Your task to perform on an android device: Open calendar and show me the fourth week of next month Image 0: 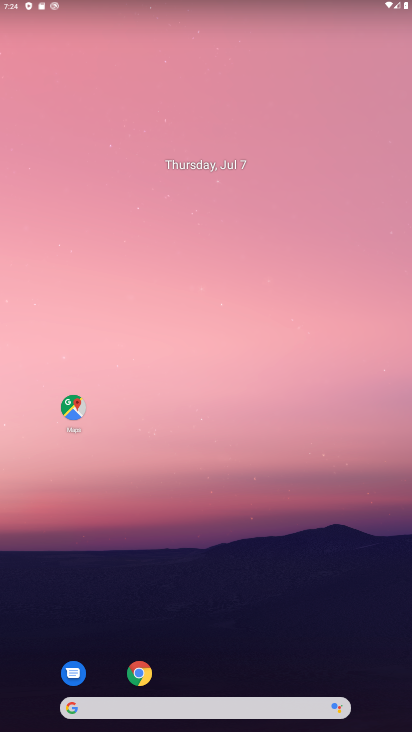
Step 0: drag from (226, 641) to (196, 28)
Your task to perform on an android device: Open calendar and show me the fourth week of next month Image 1: 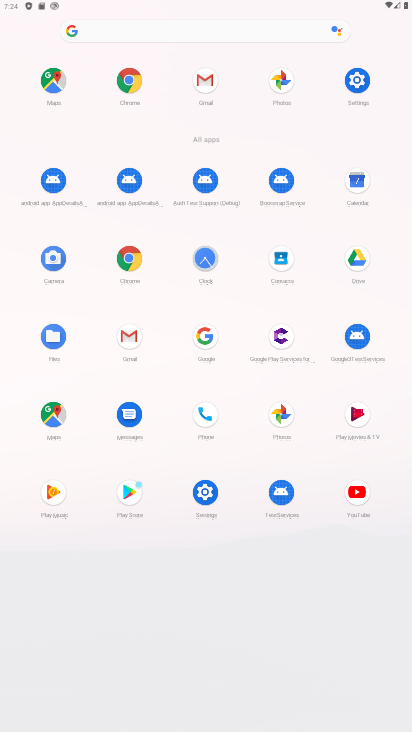
Step 1: click (359, 183)
Your task to perform on an android device: Open calendar and show me the fourth week of next month Image 2: 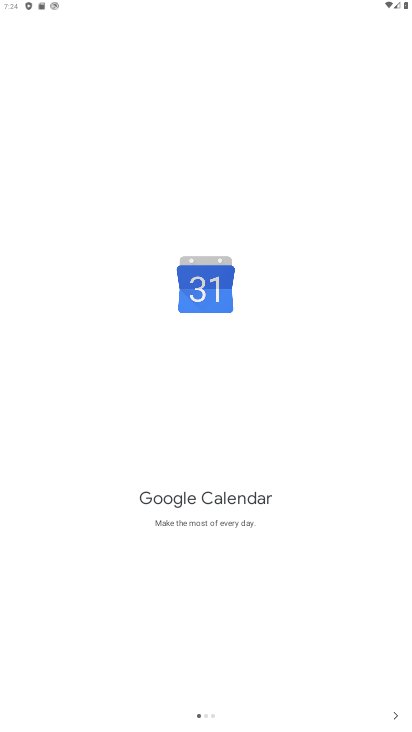
Step 2: click (396, 715)
Your task to perform on an android device: Open calendar and show me the fourth week of next month Image 3: 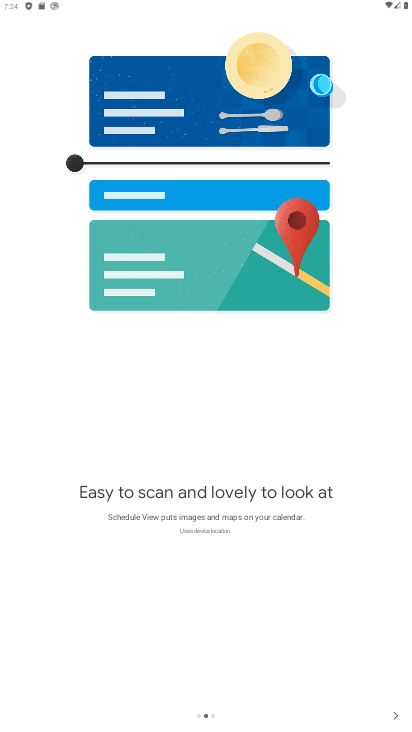
Step 3: click (396, 715)
Your task to perform on an android device: Open calendar and show me the fourth week of next month Image 4: 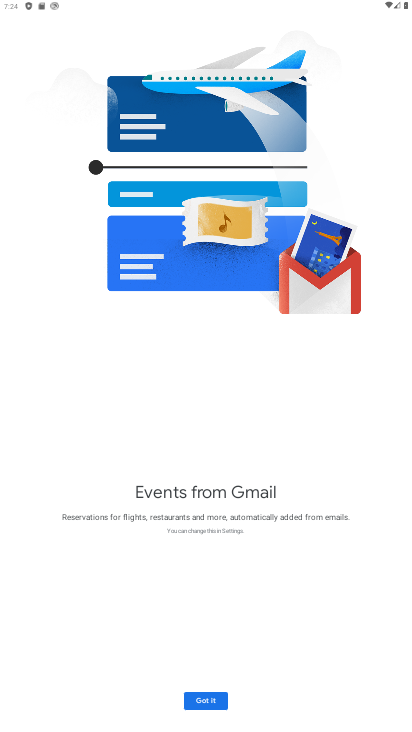
Step 4: click (219, 701)
Your task to perform on an android device: Open calendar and show me the fourth week of next month Image 5: 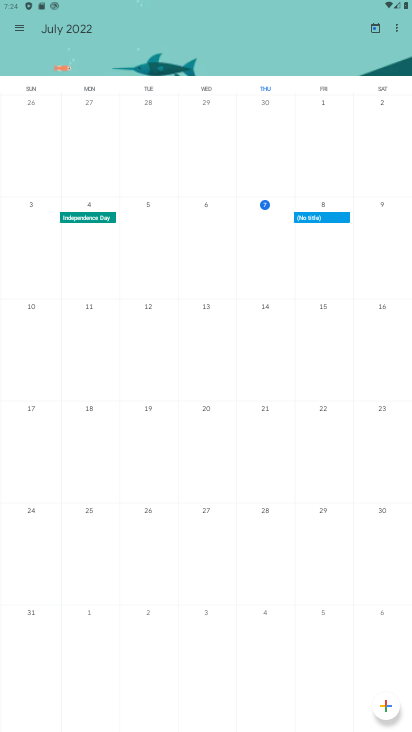
Step 5: drag from (366, 363) to (5, 373)
Your task to perform on an android device: Open calendar and show me the fourth week of next month Image 6: 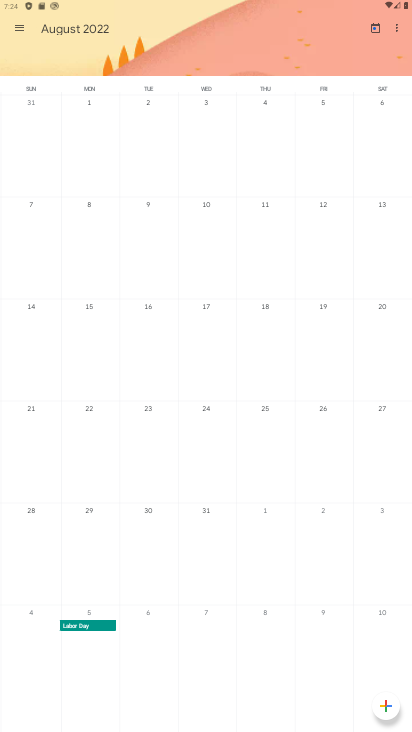
Step 6: click (93, 423)
Your task to perform on an android device: Open calendar and show me the fourth week of next month Image 7: 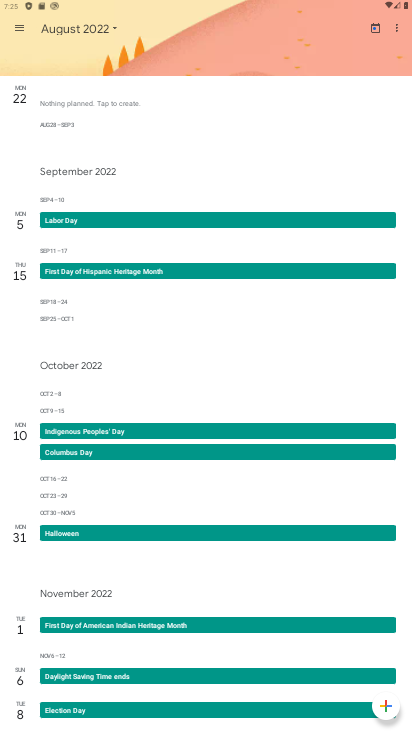
Step 7: click (21, 23)
Your task to perform on an android device: Open calendar and show me the fourth week of next month Image 8: 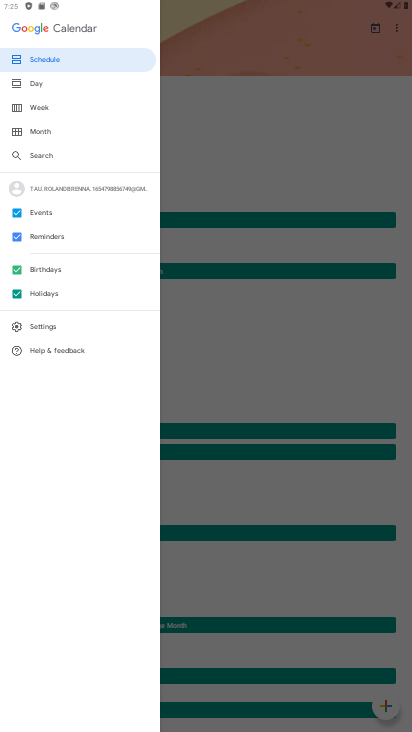
Step 8: click (73, 110)
Your task to perform on an android device: Open calendar and show me the fourth week of next month Image 9: 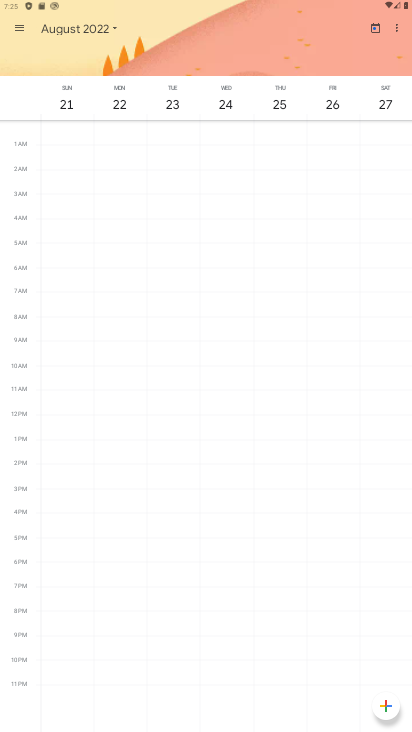
Step 9: task complete